Your task to perform on an android device: turn on priority inbox in the gmail app Image 0: 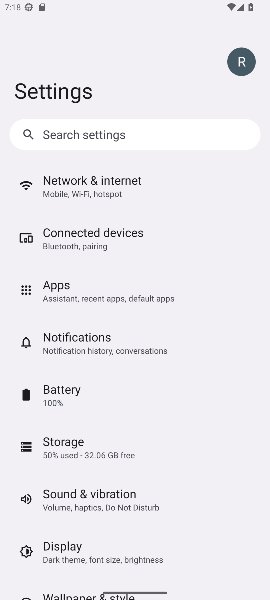
Step 0: press home button
Your task to perform on an android device: turn on priority inbox in the gmail app Image 1: 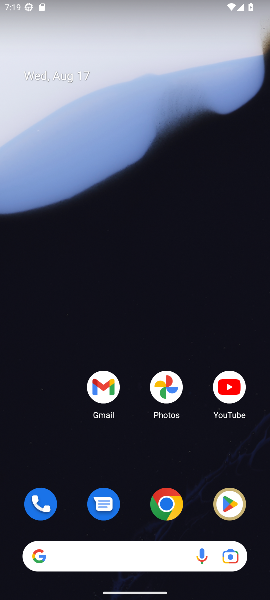
Step 1: drag from (137, 453) to (168, 53)
Your task to perform on an android device: turn on priority inbox in the gmail app Image 2: 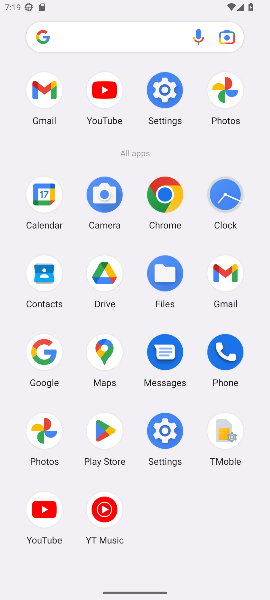
Step 2: click (229, 274)
Your task to perform on an android device: turn on priority inbox in the gmail app Image 3: 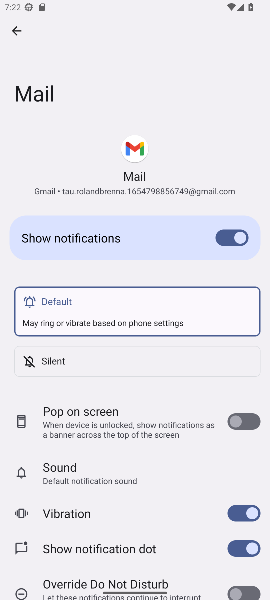
Step 3: task complete